Your task to perform on an android device: What is the recent news? Image 0: 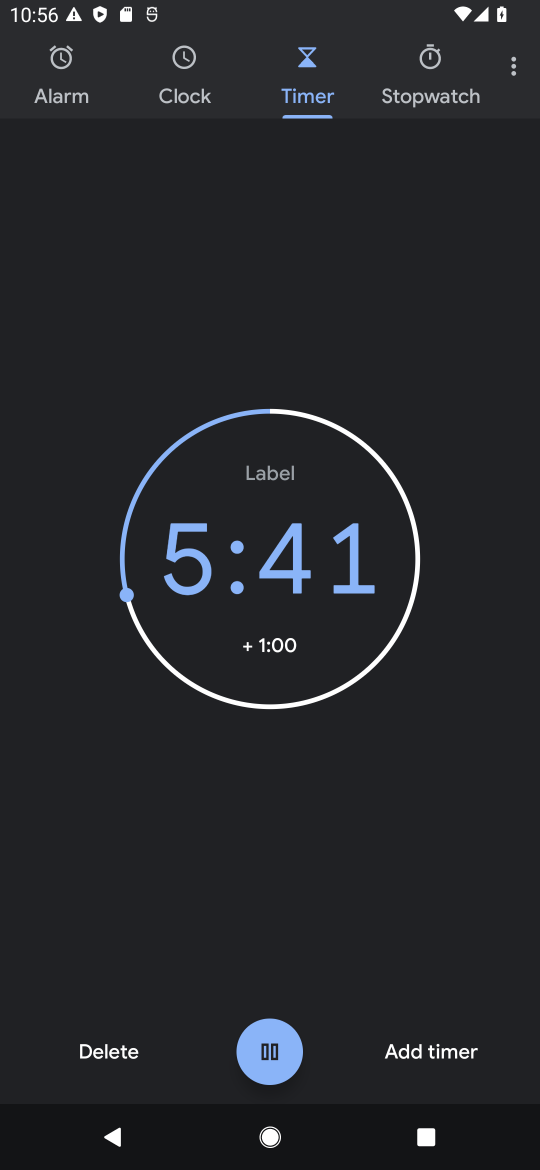
Step 0: press home button
Your task to perform on an android device: What is the recent news? Image 1: 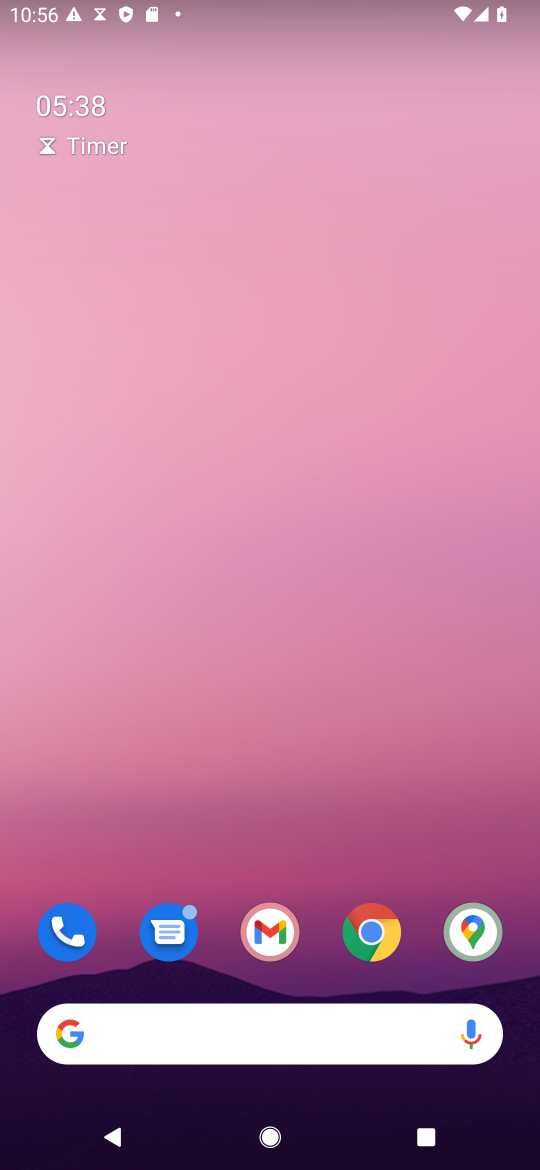
Step 1: click (232, 1024)
Your task to perform on an android device: What is the recent news? Image 2: 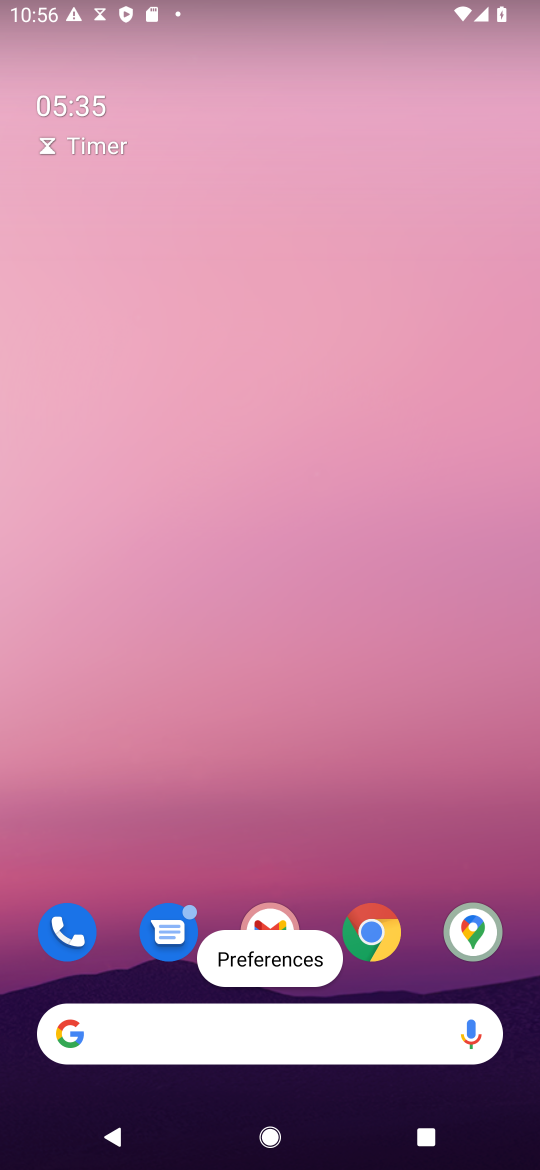
Step 2: click (228, 1024)
Your task to perform on an android device: What is the recent news? Image 3: 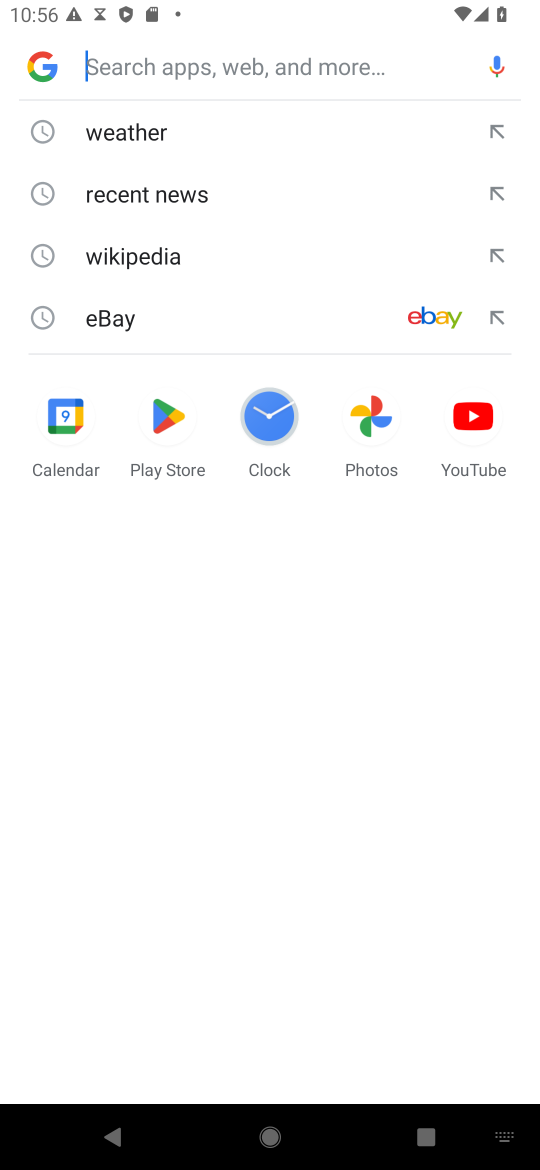
Step 3: click (198, 185)
Your task to perform on an android device: What is the recent news? Image 4: 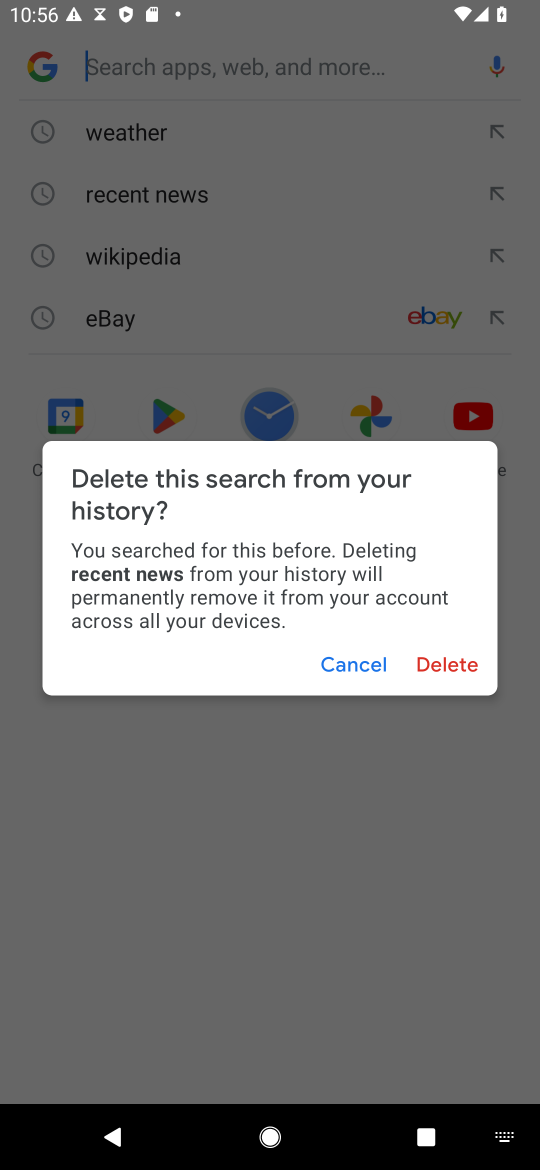
Step 4: click (347, 663)
Your task to perform on an android device: What is the recent news? Image 5: 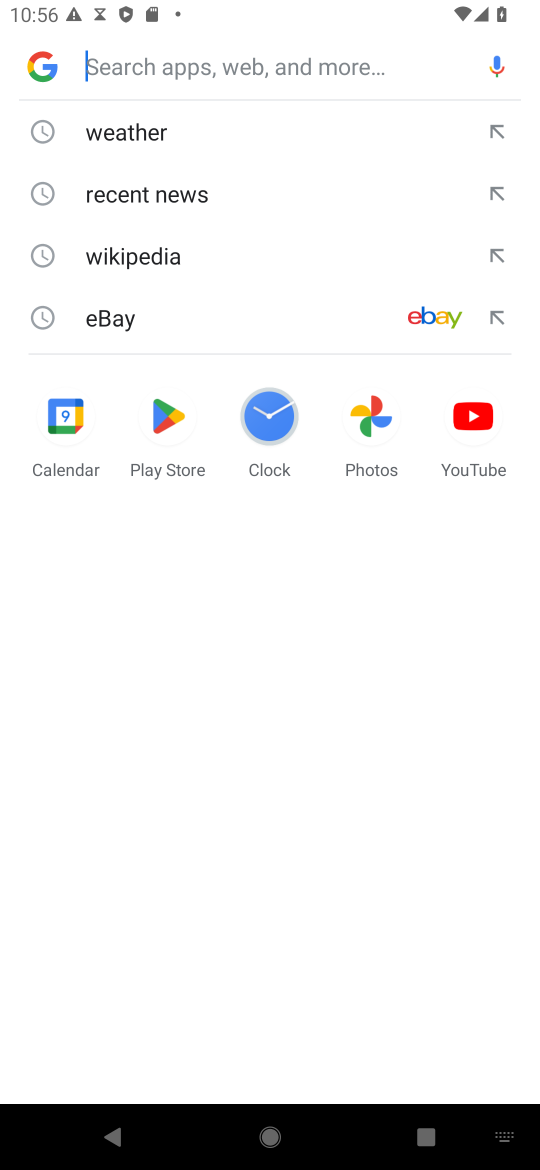
Step 5: click (120, 202)
Your task to perform on an android device: What is the recent news? Image 6: 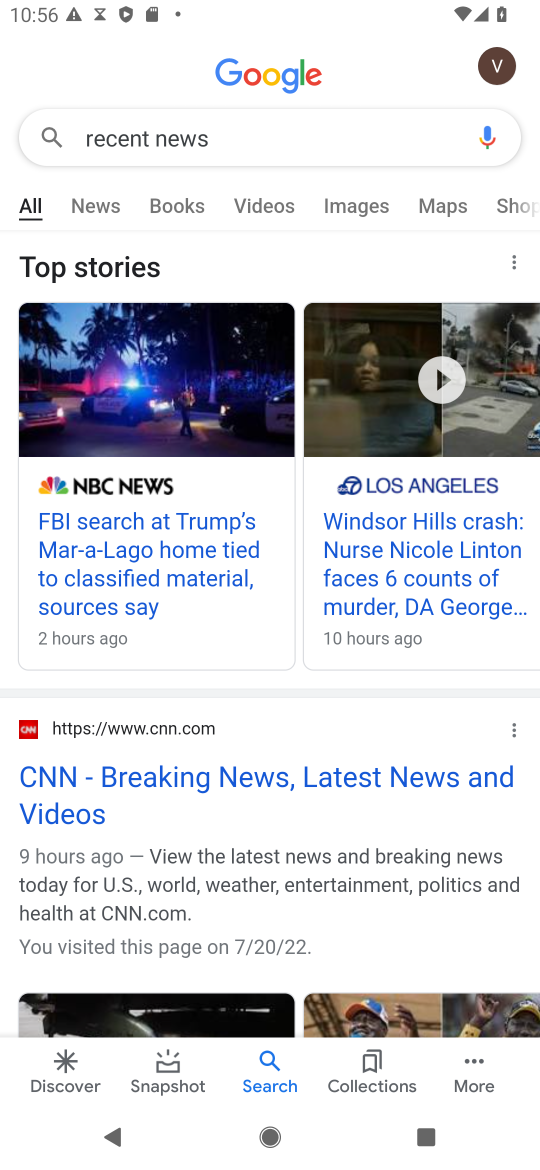
Step 6: task complete